Your task to perform on an android device: Go to calendar. Show me events next week Image 0: 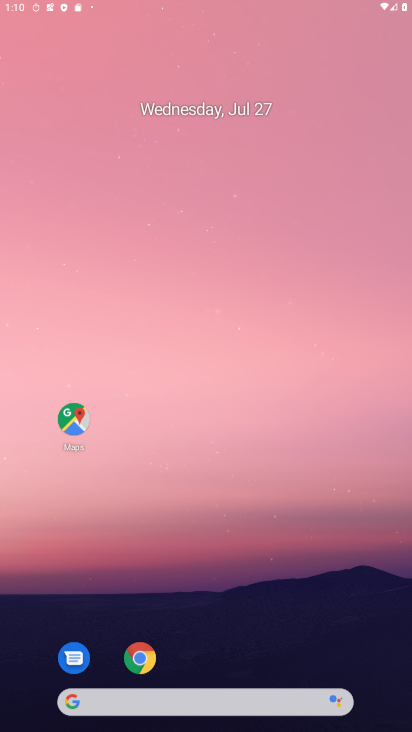
Step 0: press home button
Your task to perform on an android device: Go to calendar. Show me events next week Image 1: 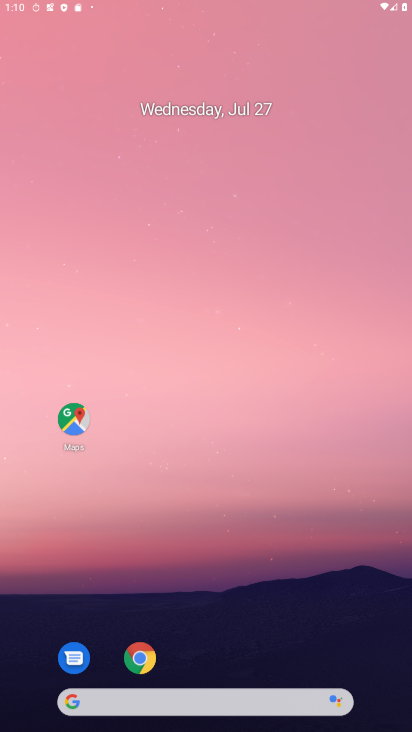
Step 1: drag from (371, 136) to (220, 4)
Your task to perform on an android device: Go to calendar. Show me events next week Image 2: 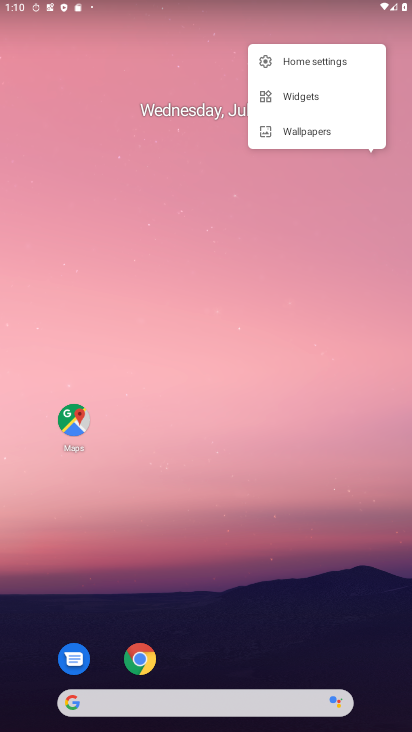
Step 2: click (303, 562)
Your task to perform on an android device: Go to calendar. Show me events next week Image 3: 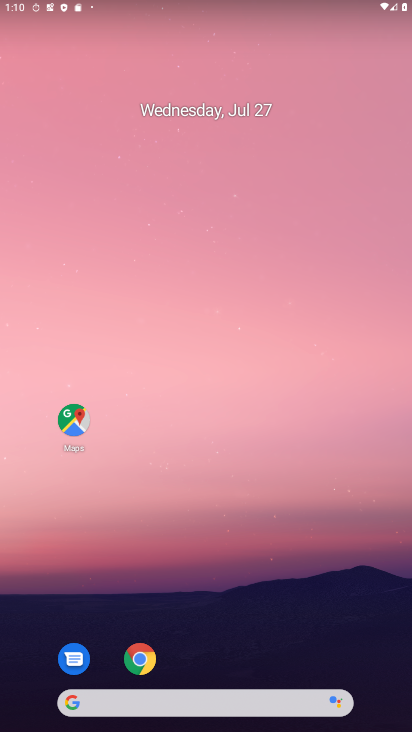
Step 3: drag from (359, 657) to (283, 206)
Your task to perform on an android device: Go to calendar. Show me events next week Image 4: 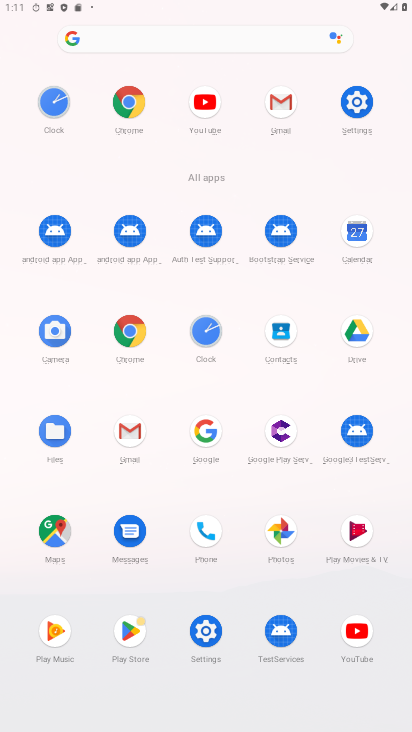
Step 4: click (356, 240)
Your task to perform on an android device: Go to calendar. Show me events next week Image 5: 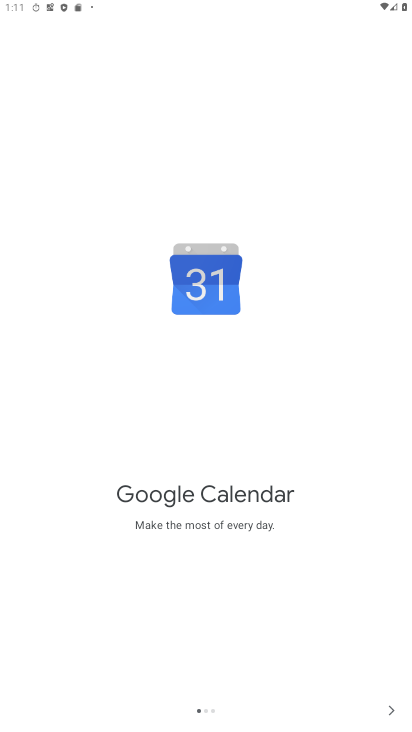
Step 5: click (384, 706)
Your task to perform on an android device: Go to calendar. Show me events next week Image 6: 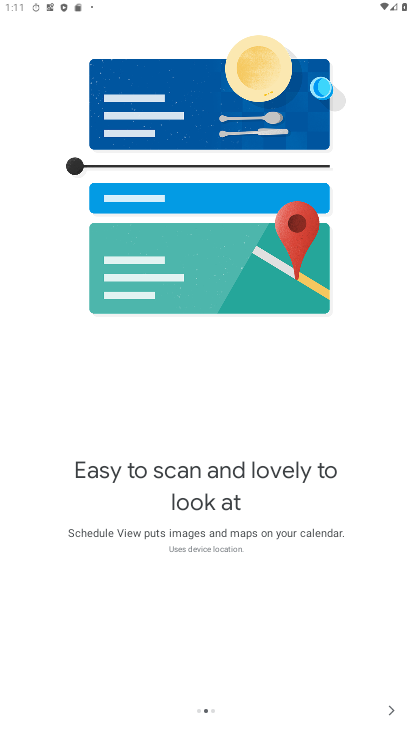
Step 6: click (394, 721)
Your task to perform on an android device: Go to calendar. Show me events next week Image 7: 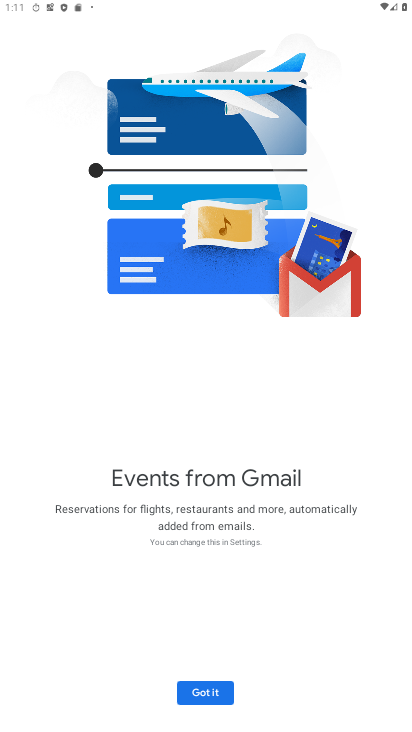
Step 7: click (394, 721)
Your task to perform on an android device: Go to calendar. Show me events next week Image 8: 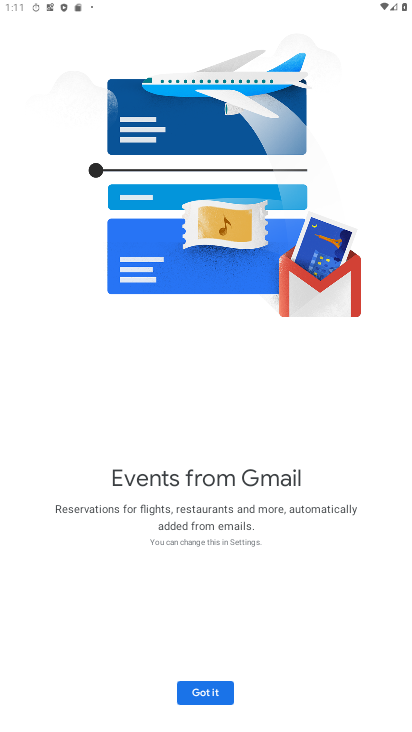
Step 8: click (193, 705)
Your task to perform on an android device: Go to calendar. Show me events next week Image 9: 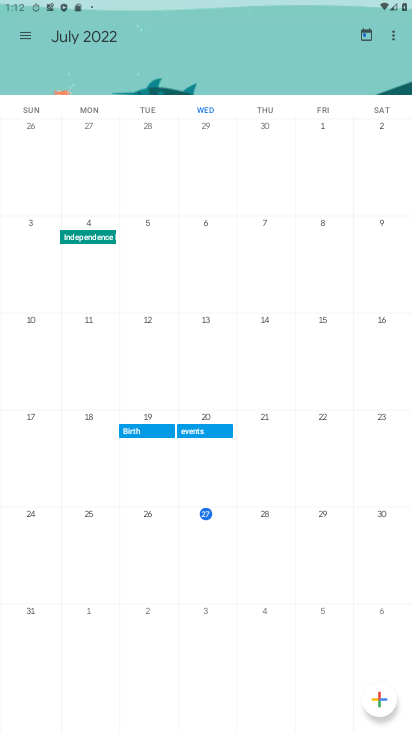
Step 9: click (223, 652)
Your task to perform on an android device: Go to calendar. Show me events next week Image 10: 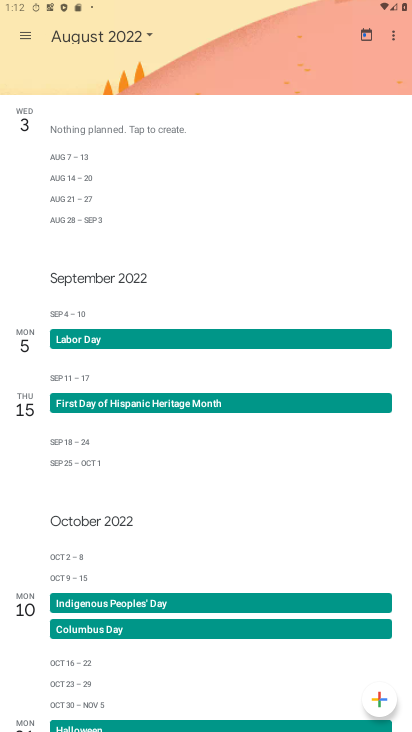
Step 10: task complete